Your task to perform on an android device: Open display settings Image 0: 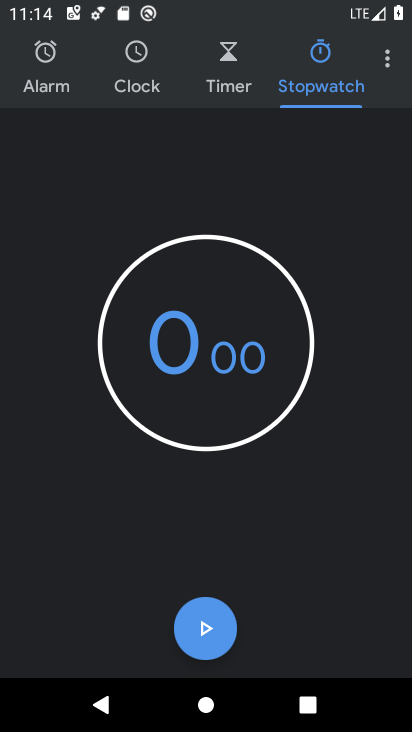
Step 0: press home button
Your task to perform on an android device: Open display settings Image 1: 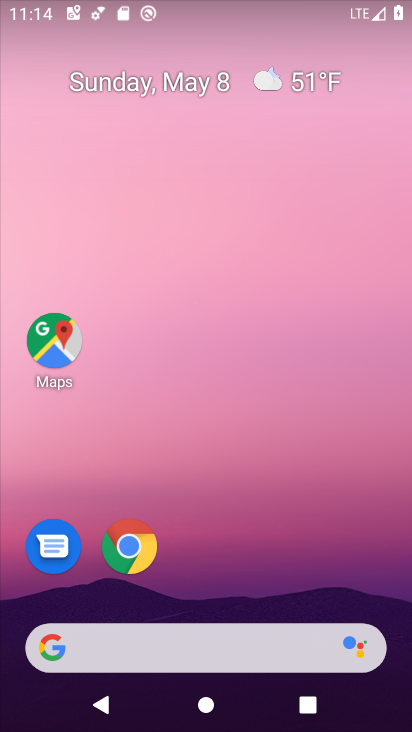
Step 1: drag from (381, 607) to (305, 106)
Your task to perform on an android device: Open display settings Image 2: 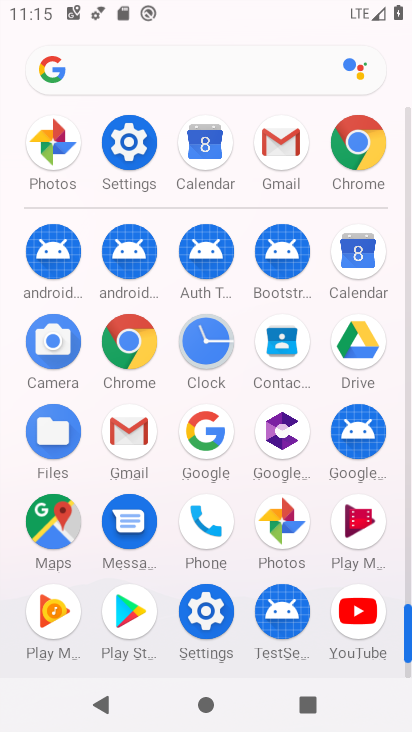
Step 2: click (204, 615)
Your task to perform on an android device: Open display settings Image 3: 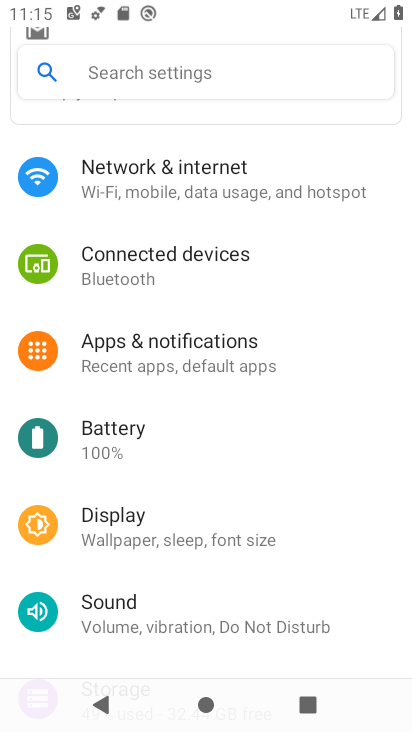
Step 3: click (145, 522)
Your task to perform on an android device: Open display settings Image 4: 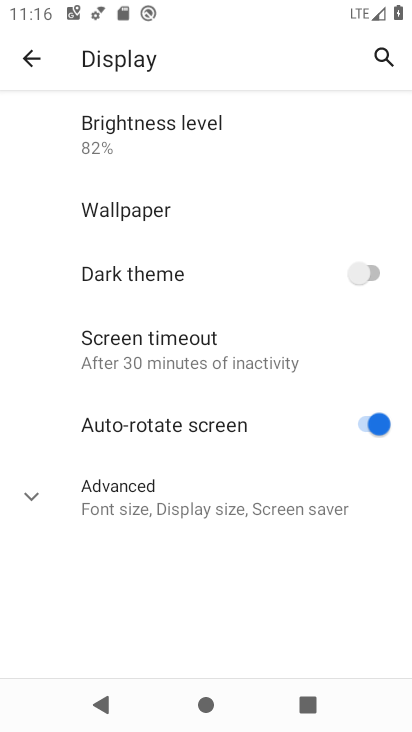
Step 4: task complete